Your task to perform on an android device: turn off smart reply in the gmail app Image 0: 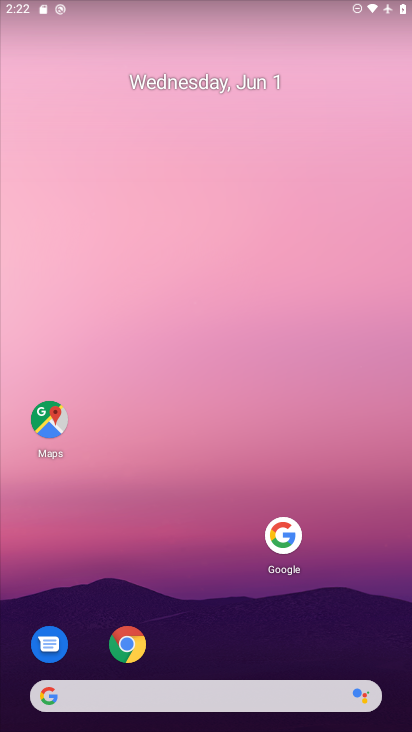
Step 0: press home button
Your task to perform on an android device: turn off smart reply in the gmail app Image 1: 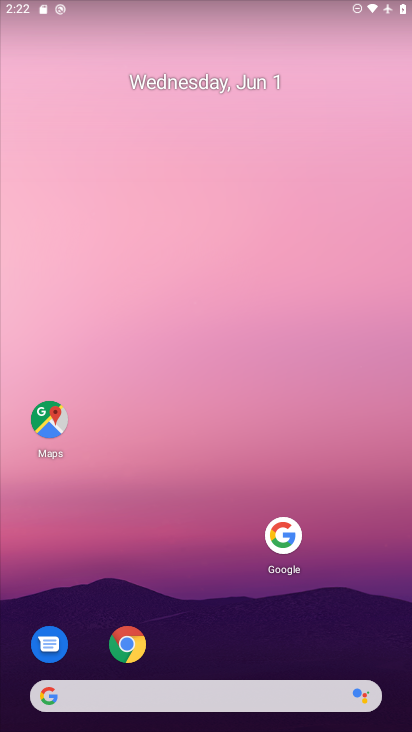
Step 1: drag from (147, 678) to (280, 153)
Your task to perform on an android device: turn off smart reply in the gmail app Image 2: 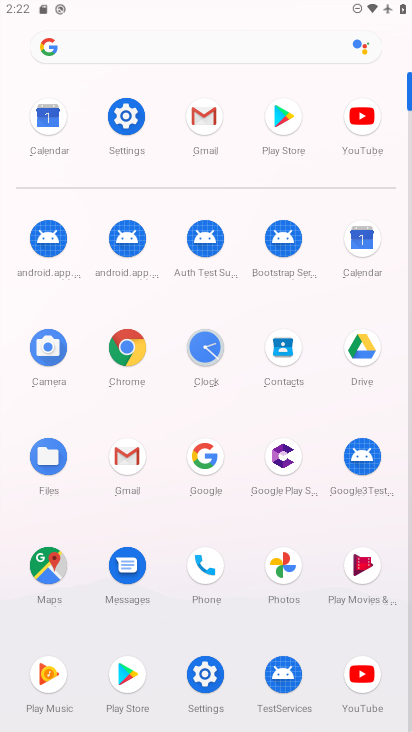
Step 2: click (200, 124)
Your task to perform on an android device: turn off smart reply in the gmail app Image 3: 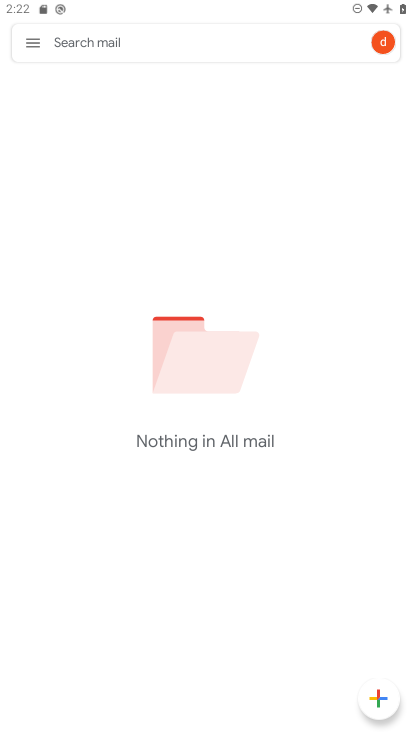
Step 3: click (32, 42)
Your task to perform on an android device: turn off smart reply in the gmail app Image 4: 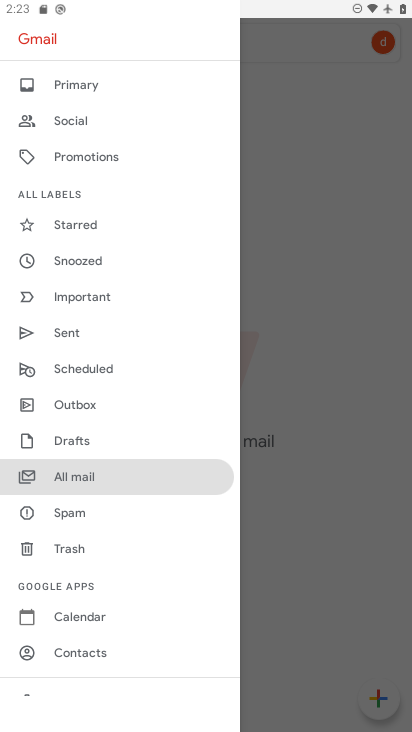
Step 4: drag from (116, 623) to (174, 114)
Your task to perform on an android device: turn off smart reply in the gmail app Image 5: 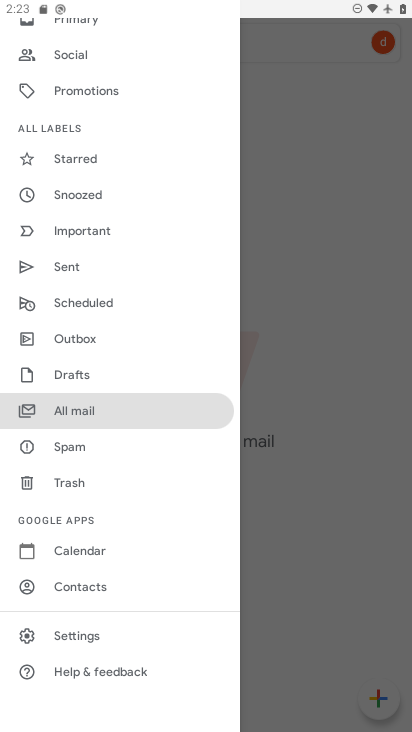
Step 5: click (75, 635)
Your task to perform on an android device: turn off smart reply in the gmail app Image 6: 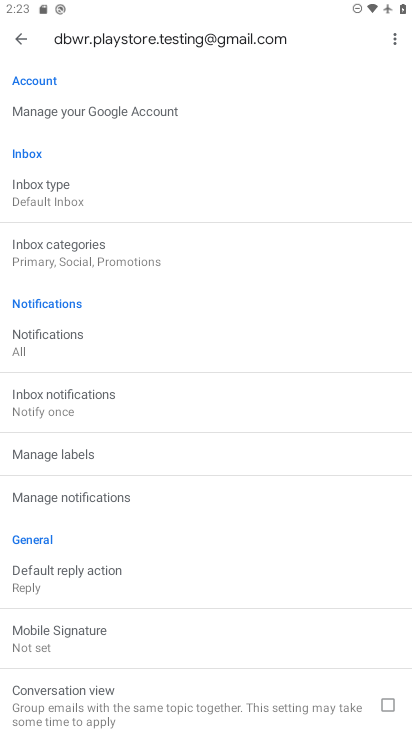
Step 6: drag from (173, 636) to (324, 77)
Your task to perform on an android device: turn off smart reply in the gmail app Image 7: 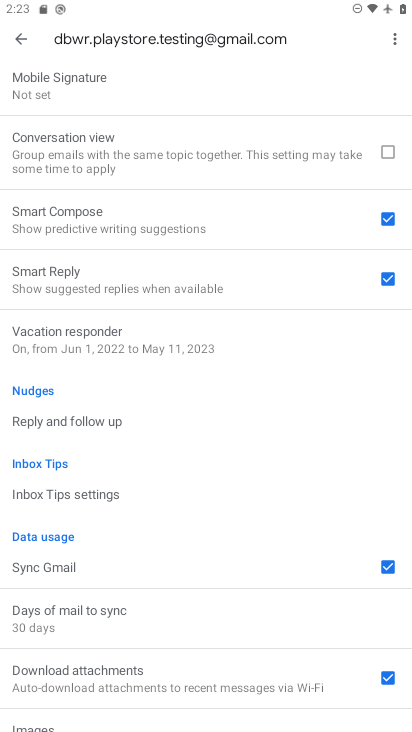
Step 7: click (389, 278)
Your task to perform on an android device: turn off smart reply in the gmail app Image 8: 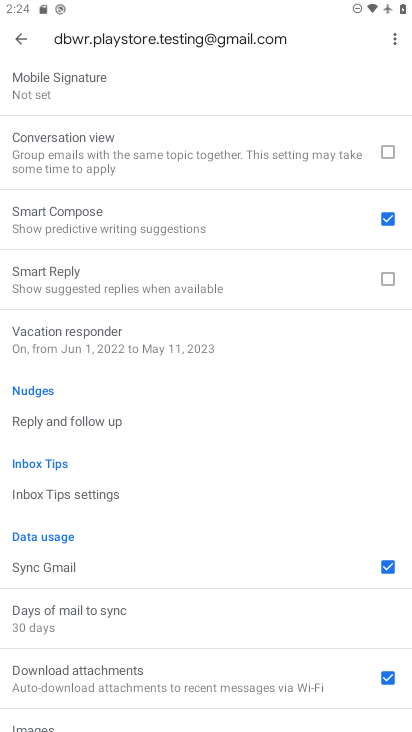
Step 8: task complete